Your task to perform on an android device: allow notifications from all sites in the chrome app Image 0: 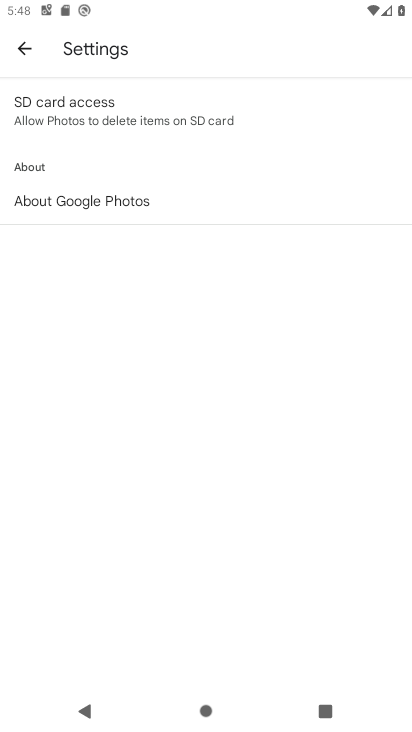
Step 0: press home button
Your task to perform on an android device: allow notifications from all sites in the chrome app Image 1: 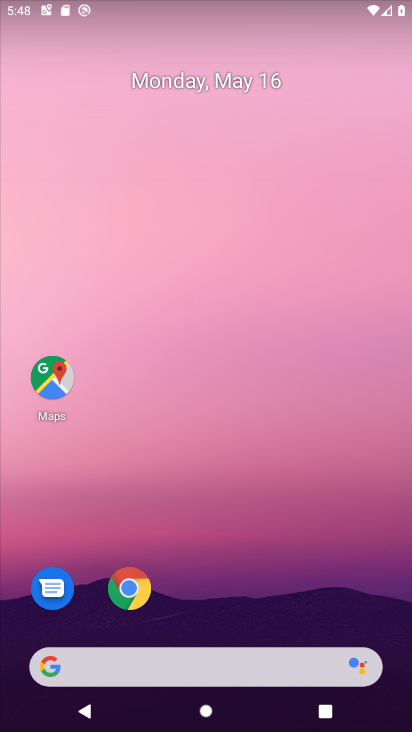
Step 1: drag from (290, 538) to (196, 29)
Your task to perform on an android device: allow notifications from all sites in the chrome app Image 2: 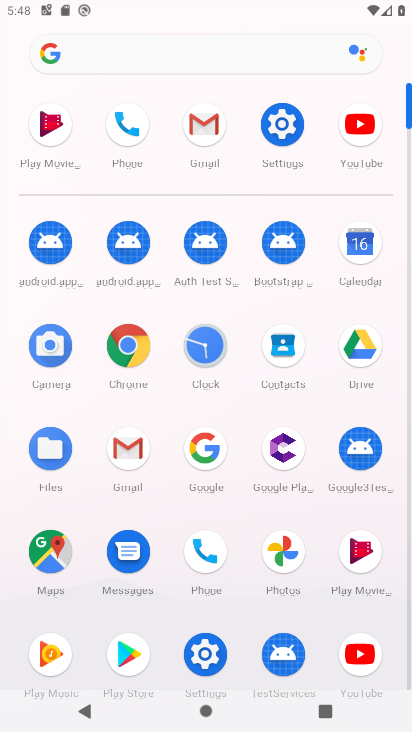
Step 2: click (135, 340)
Your task to perform on an android device: allow notifications from all sites in the chrome app Image 3: 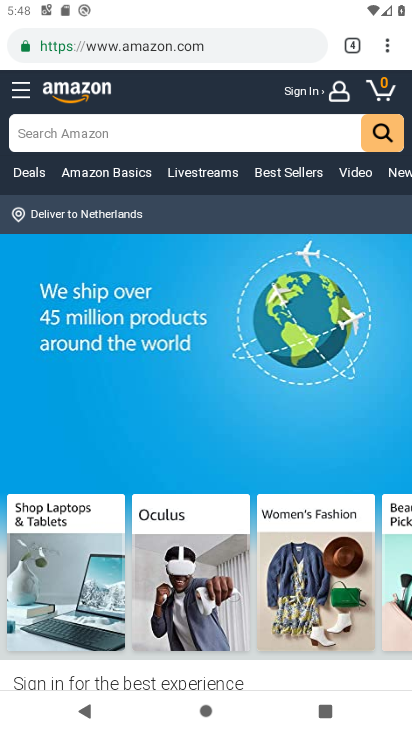
Step 3: click (384, 43)
Your task to perform on an android device: allow notifications from all sites in the chrome app Image 4: 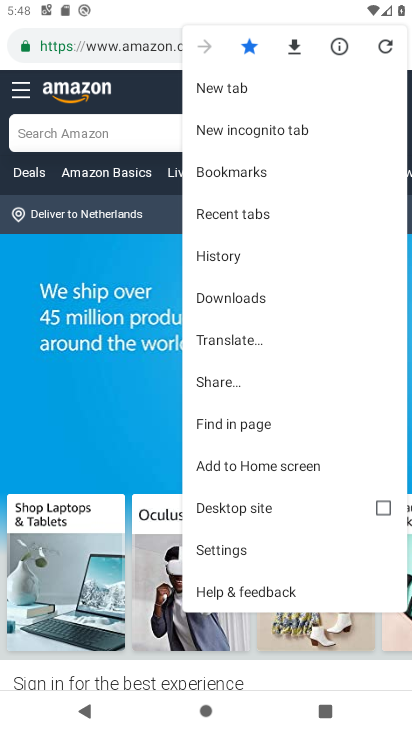
Step 4: click (264, 554)
Your task to perform on an android device: allow notifications from all sites in the chrome app Image 5: 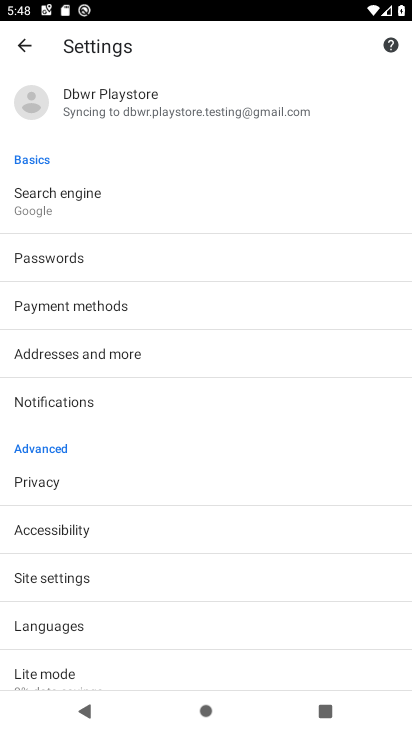
Step 5: click (134, 565)
Your task to perform on an android device: allow notifications from all sites in the chrome app Image 6: 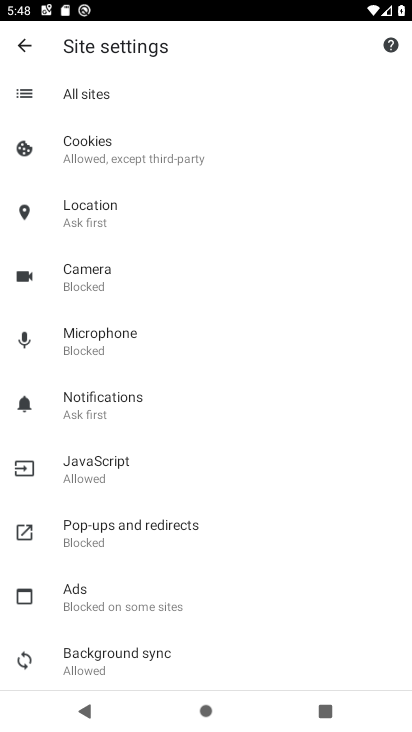
Step 6: click (129, 397)
Your task to perform on an android device: allow notifications from all sites in the chrome app Image 7: 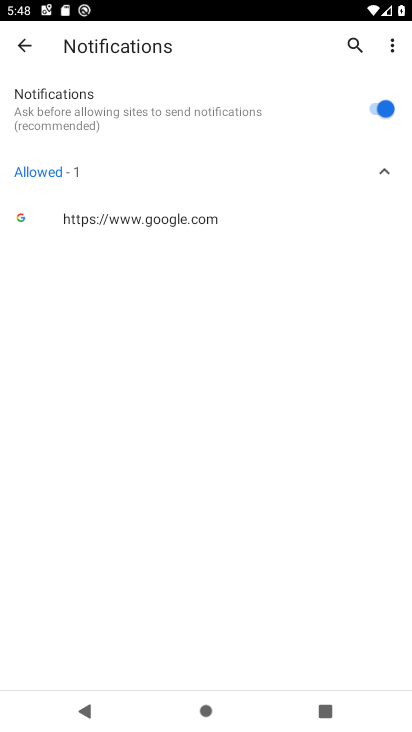
Step 7: task complete